Your task to perform on an android device: Open the stopwatch Image 0: 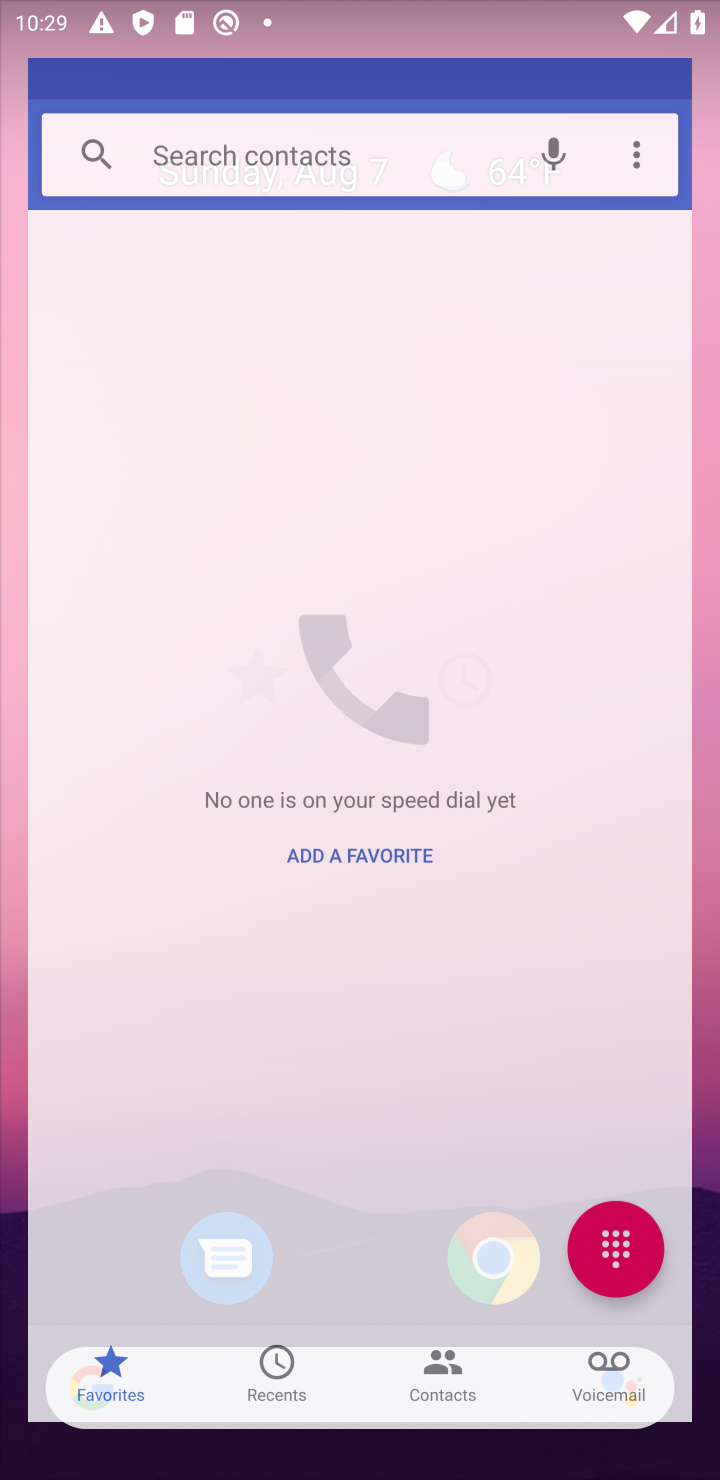
Step 0: press home button
Your task to perform on an android device: Open the stopwatch Image 1: 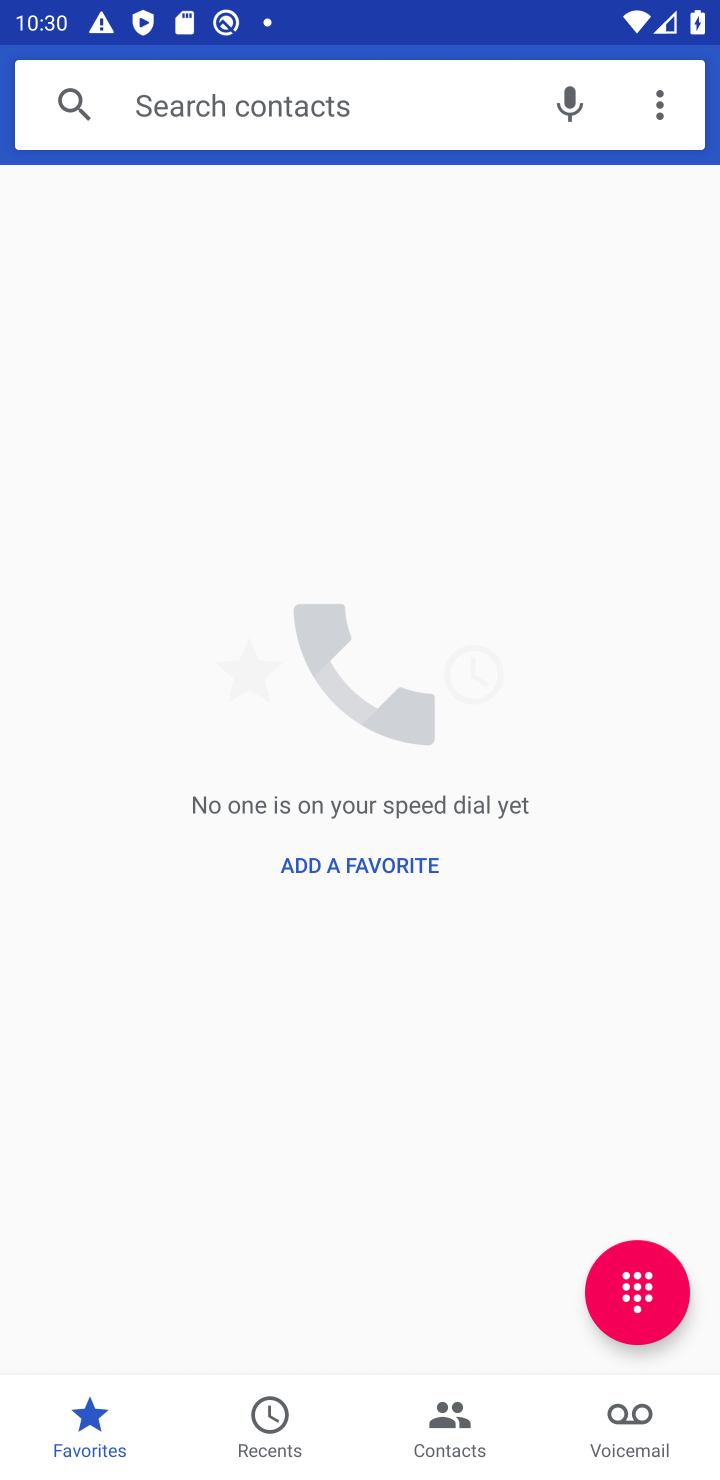
Step 1: press home button
Your task to perform on an android device: Open the stopwatch Image 2: 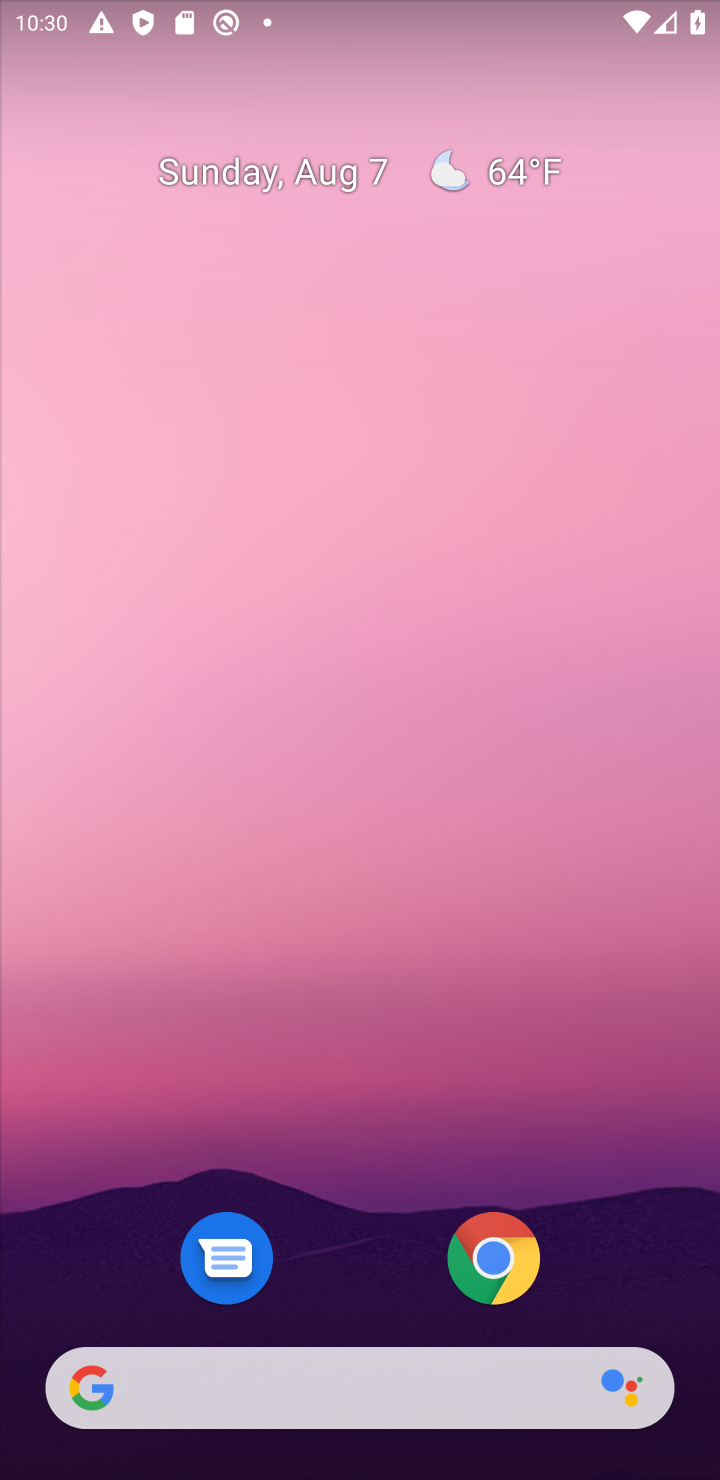
Step 2: drag from (387, 1290) to (383, 382)
Your task to perform on an android device: Open the stopwatch Image 3: 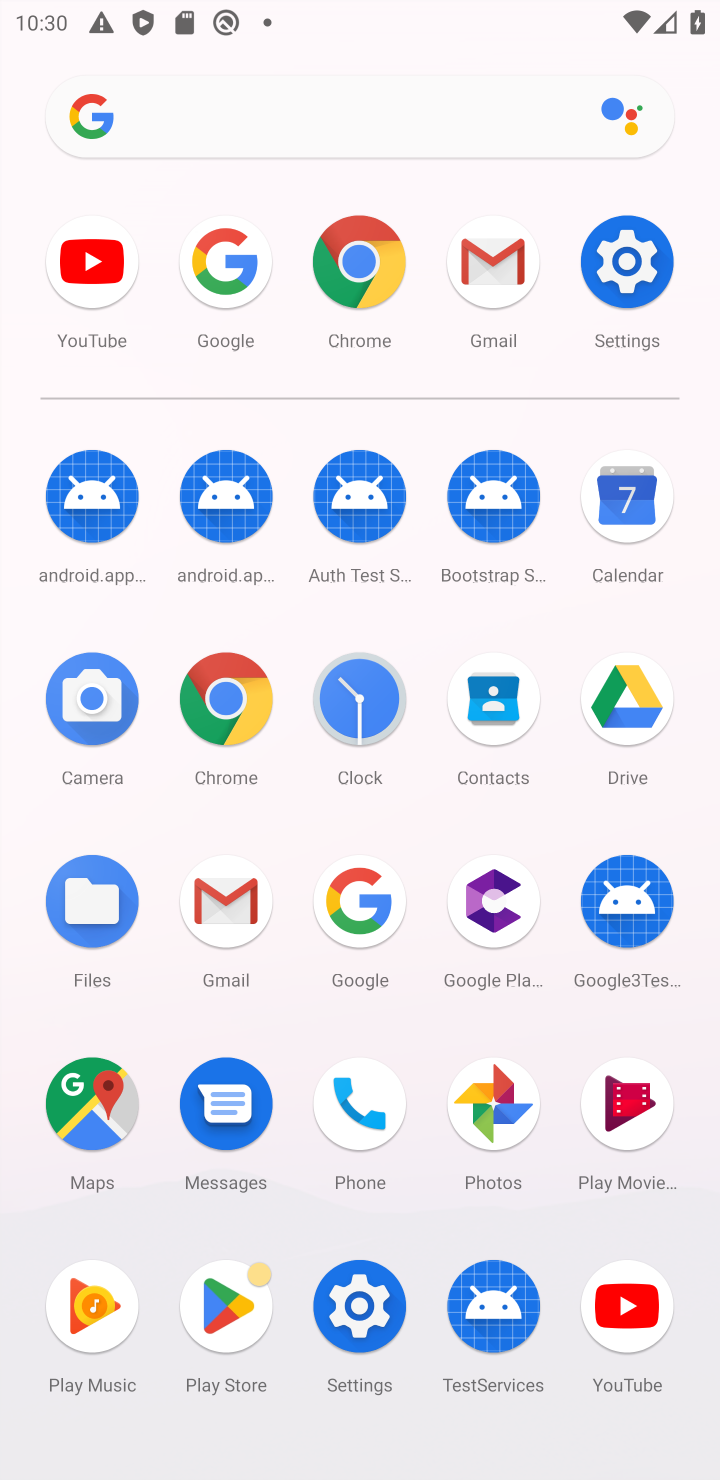
Step 3: click (354, 707)
Your task to perform on an android device: Open the stopwatch Image 4: 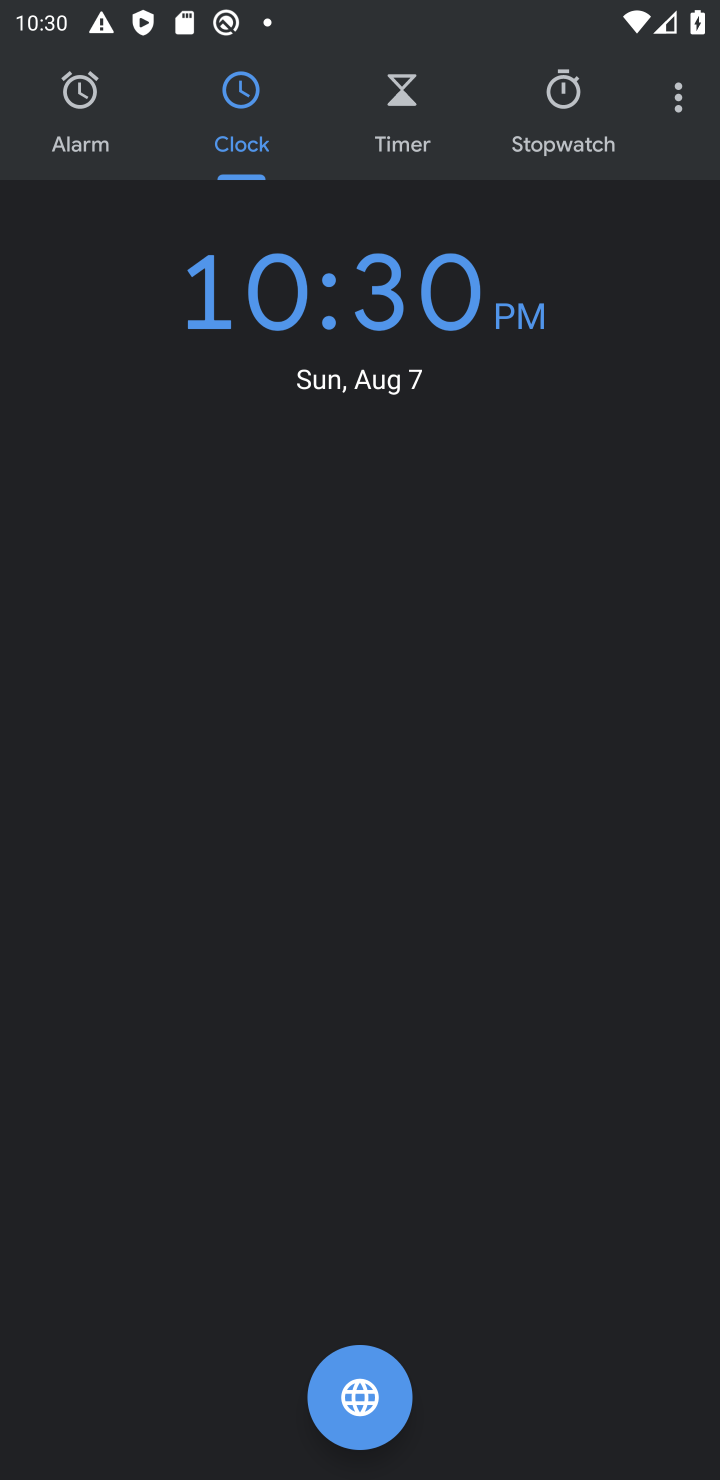
Step 4: click (529, 82)
Your task to perform on an android device: Open the stopwatch Image 5: 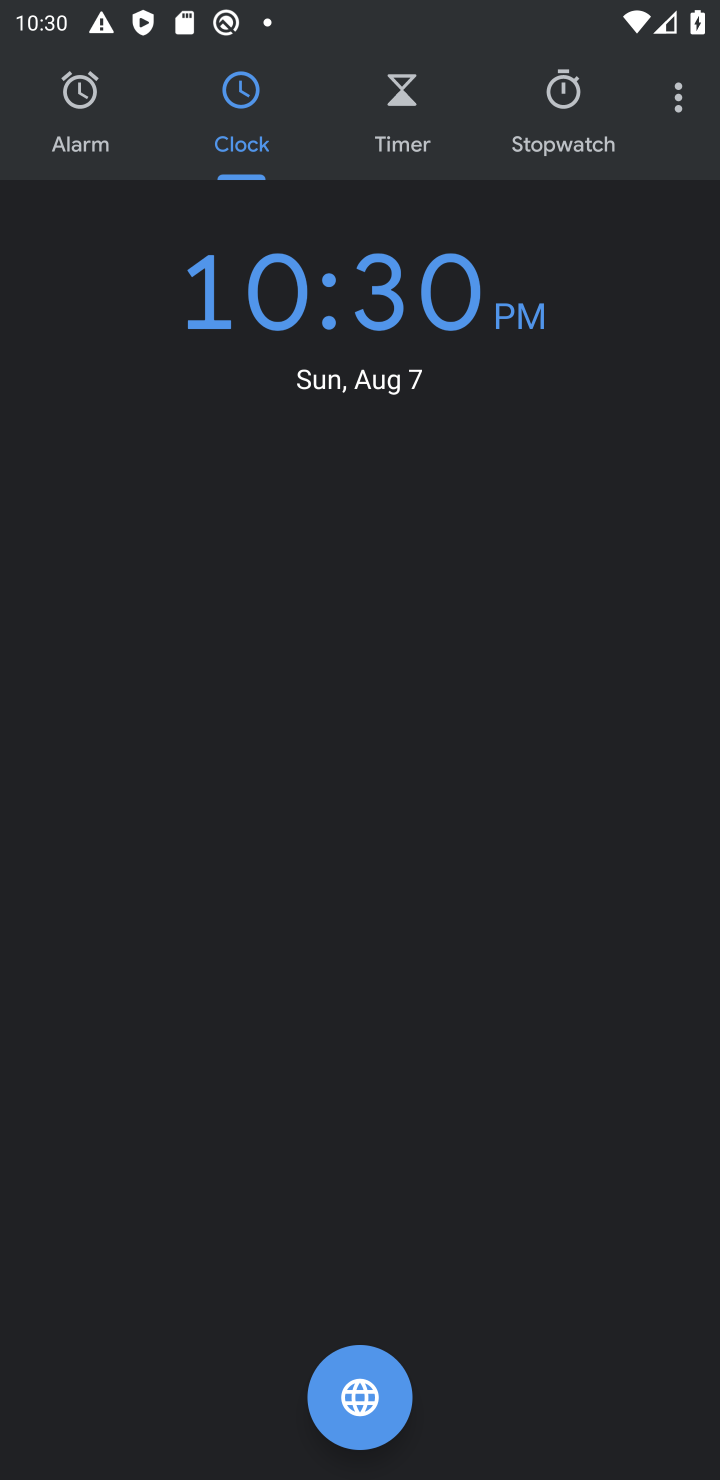
Step 5: click (577, 135)
Your task to perform on an android device: Open the stopwatch Image 6: 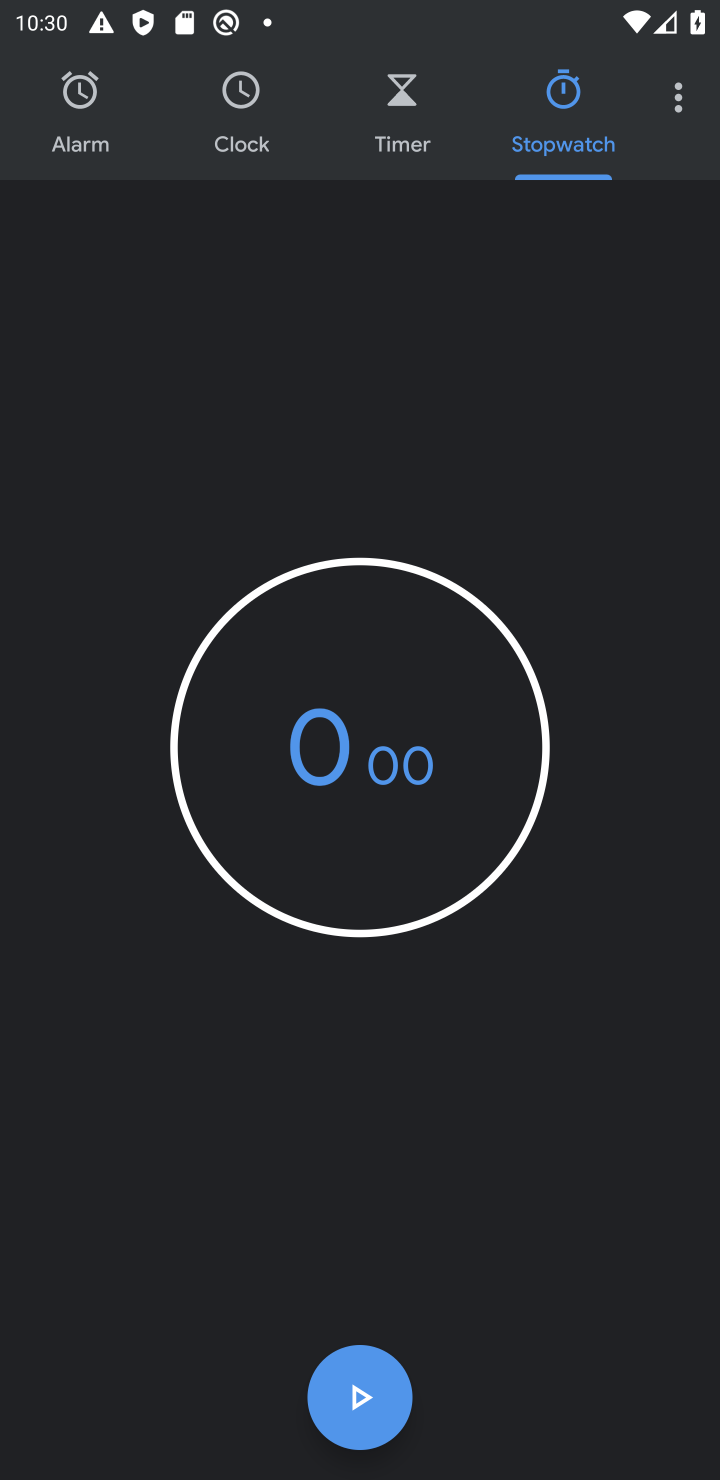
Step 6: click (355, 1407)
Your task to perform on an android device: Open the stopwatch Image 7: 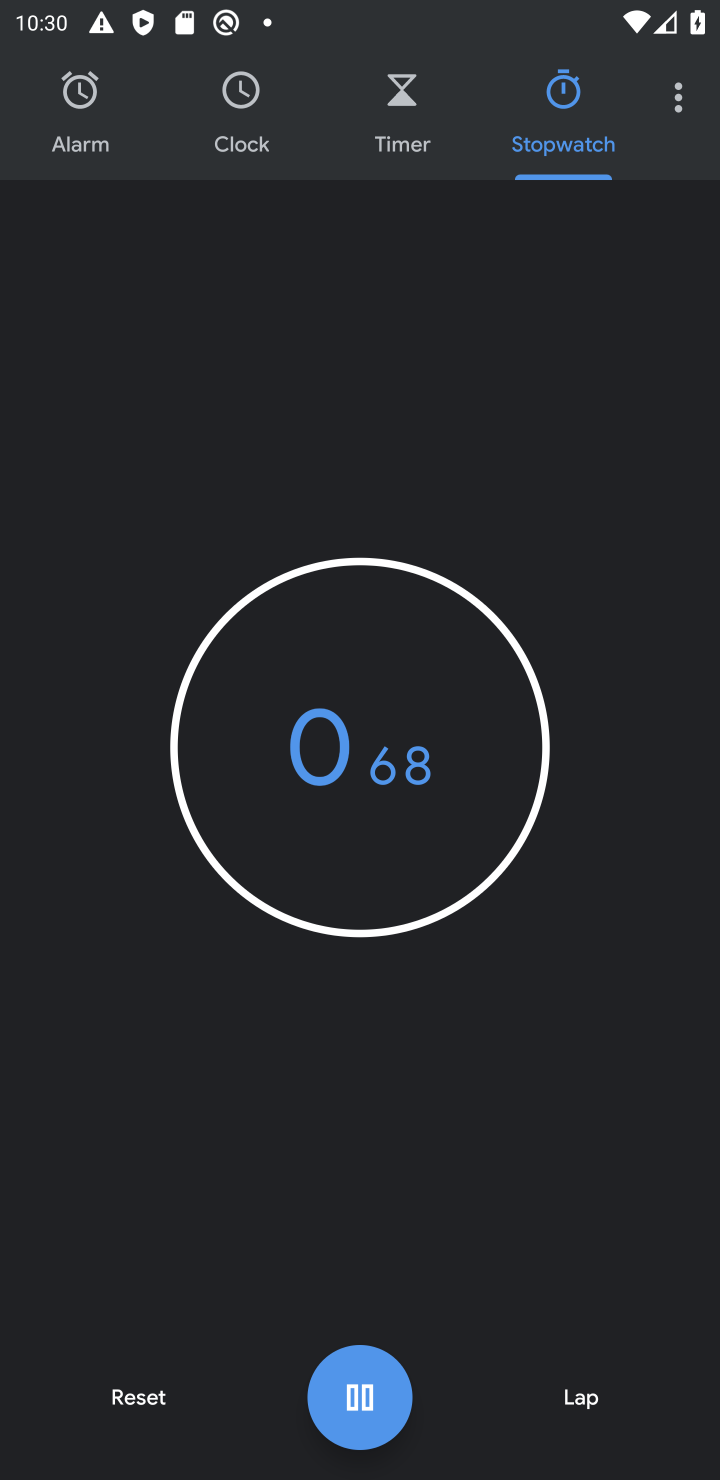
Step 7: click (355, 1407)
Your task to perform on an android device: Open the stopwatch Image 8: 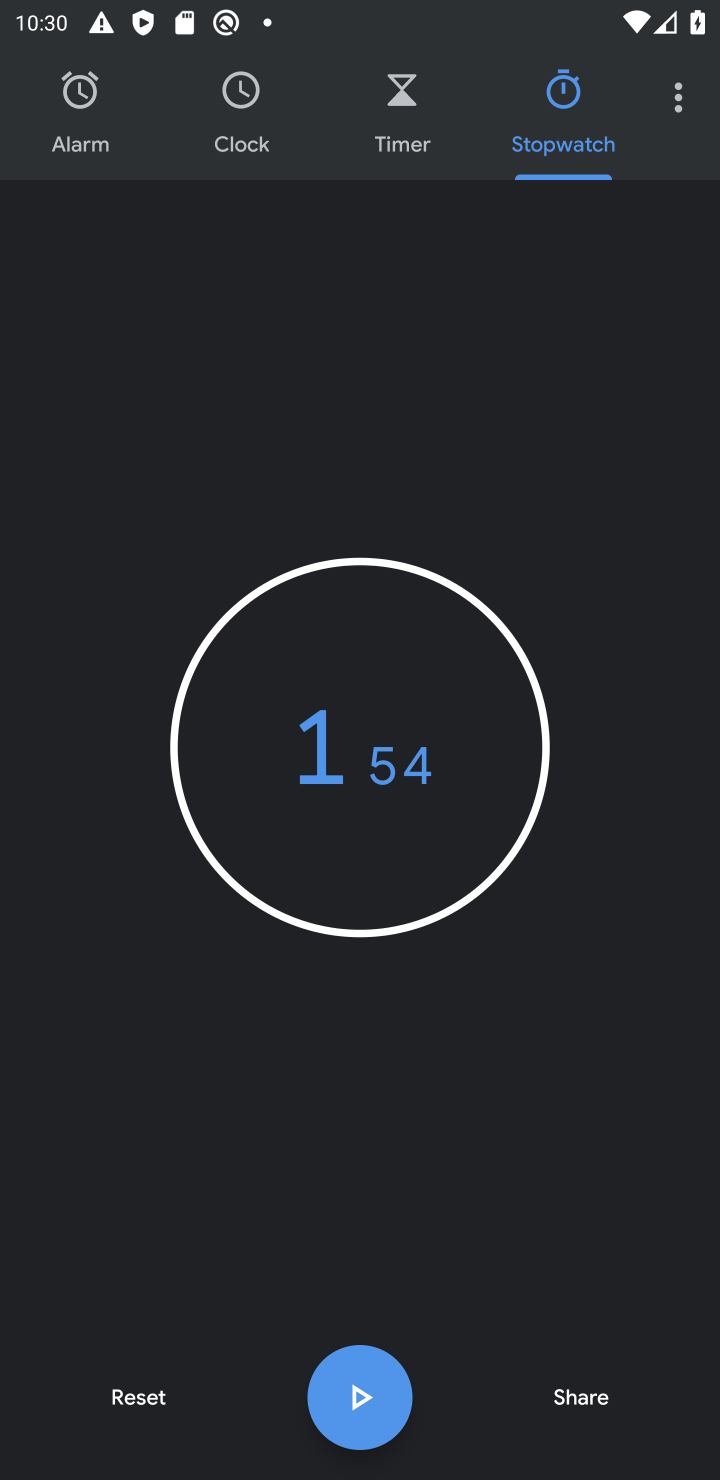
Step 8: click (159, 1407)
Your task to perform on an android device: Open the stopwatch Image 9: 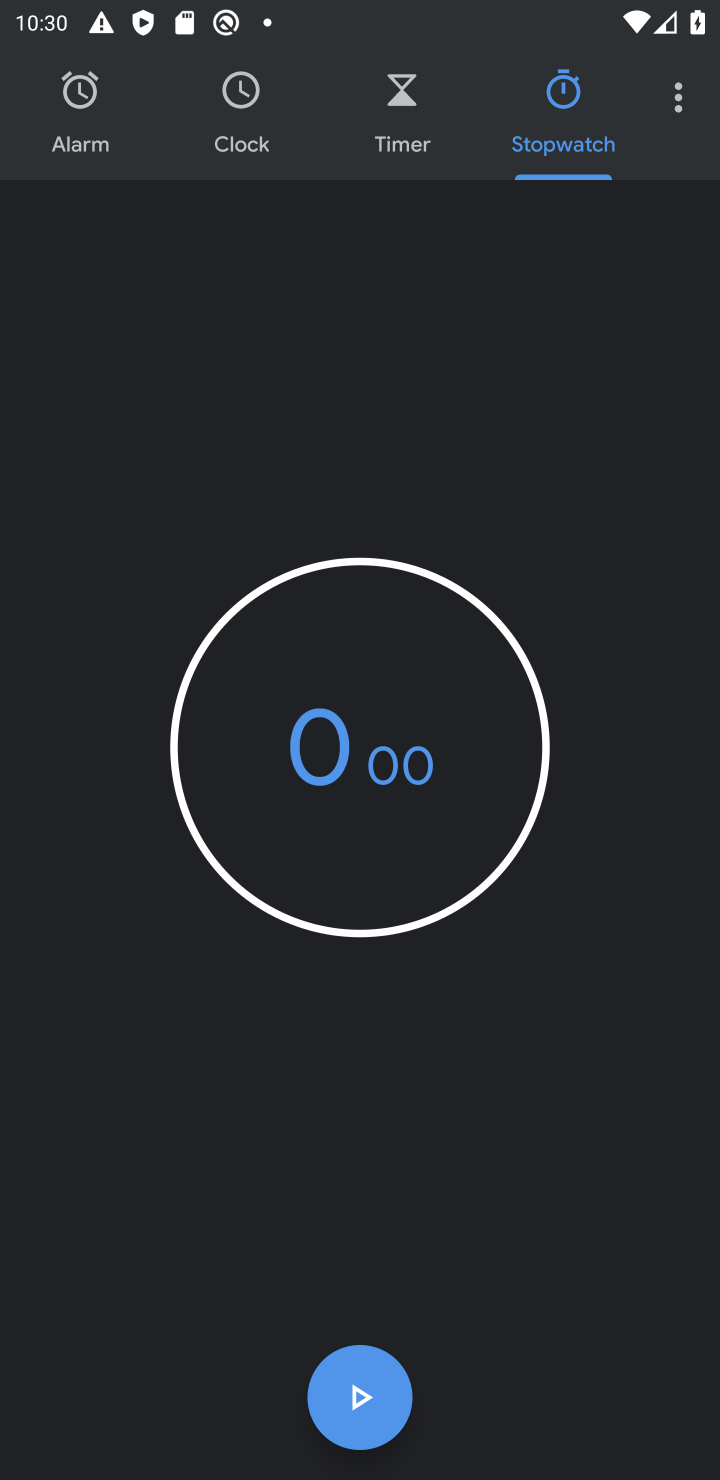
Step 9: task complete